Your task to perform on an android device: toggle translation in the chrome app Image 0: 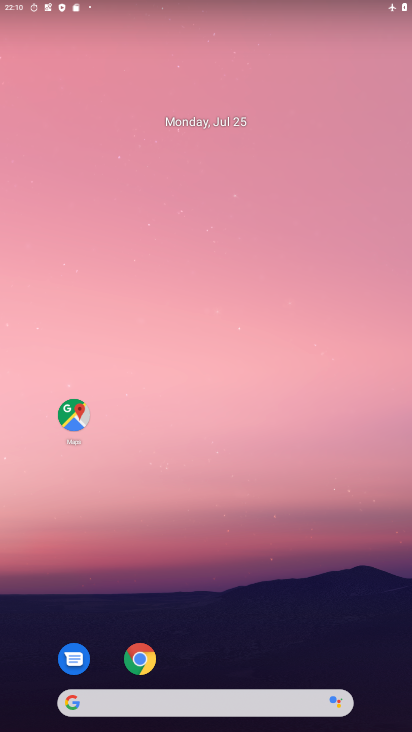
Step 0: click (146, 657)
Your task to perform on an android device: toggle translation in the chrome app Image 1: 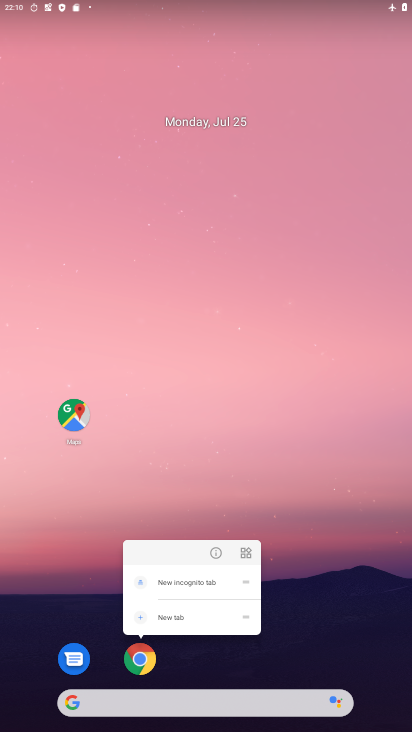
Step 1: click (145, 657)
Your task to perform on an android device: toggle translation in the chrome app Image 2: 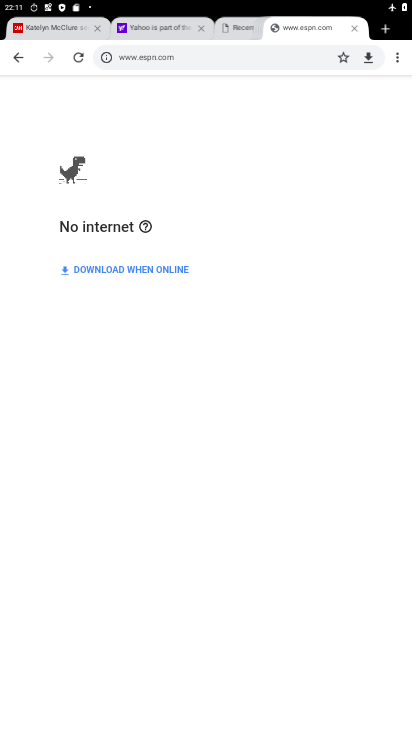
Step 2: click (397, 62)
Your task to perform on an android device: toggle translation in the chrome app Image 3: 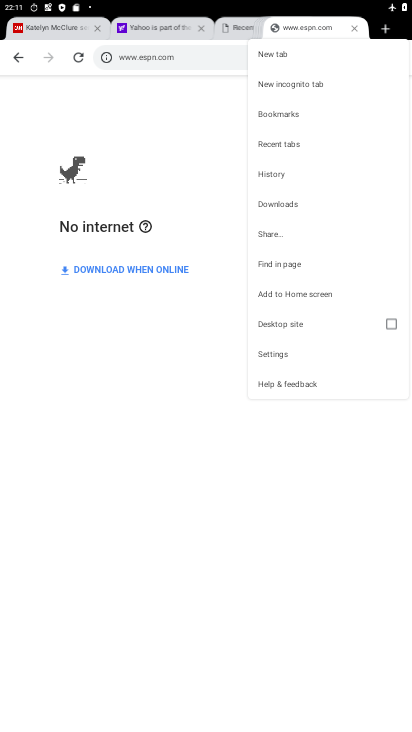
Step 3: click (297, 352)
Your task to perform on an android device: toggle translation in the chrome app Image 4: 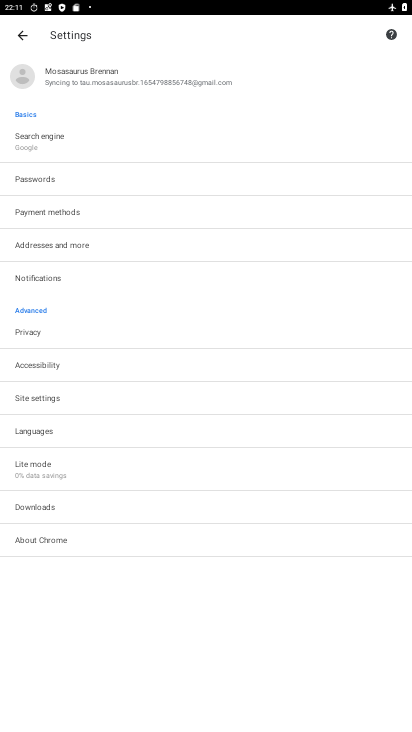
Step 4: click (62, 438)
Your task to perform on an android device: toggle translation in the chrome app Image 5: 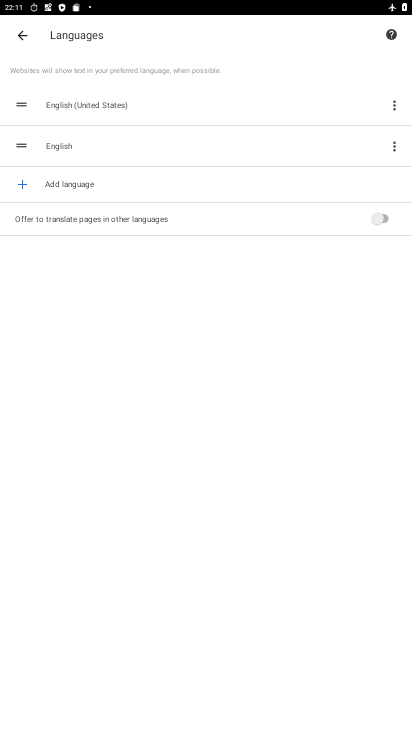
Step 5: click (383, 219)
Your task to perform on an android device: toggle translation in the chrome app Image 6: 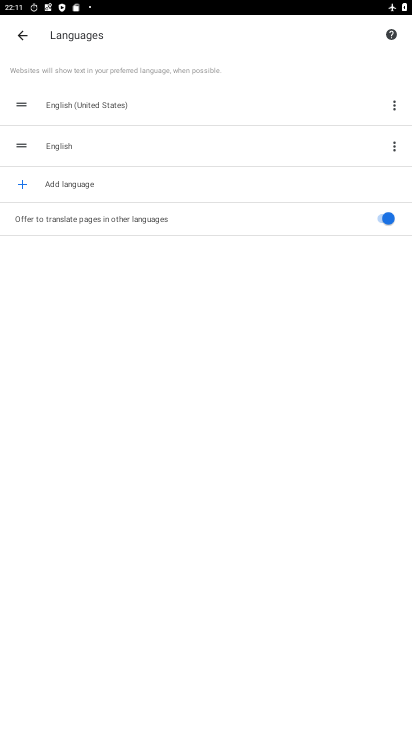
Step 6: task complete